Your task to perform on an android device: show emergency info Image 0: 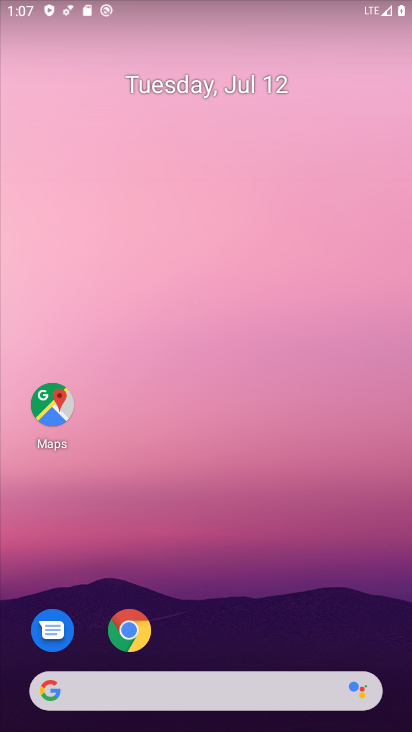
Step 0: press home button
Your task to perform on an android device: show emergency info Image 1: 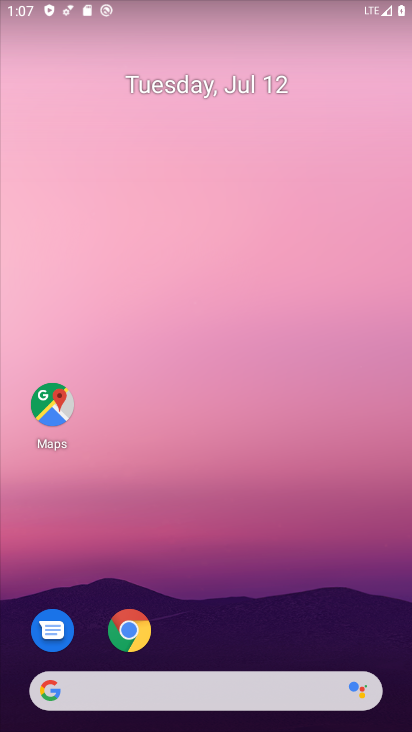
Step 1: drag from (284, 635) to (284, 131)
Your task to perform on an android device: show emergency info Image 2: 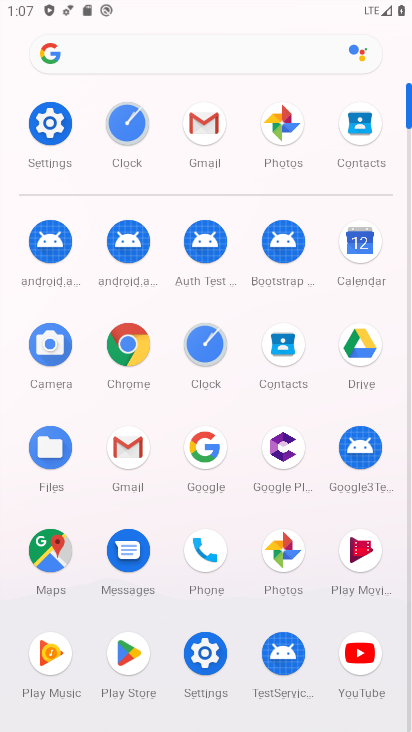
Step 2: click (204, 654)
Your task to perform on an android device: show emergency info Image 3: 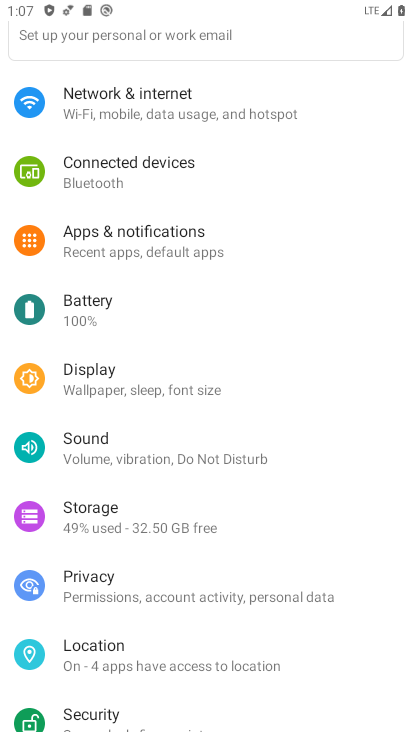
Step 3: drag from (339, 565) to (287, 84)
Your task to perform on an android device: show emergency info Image 4: 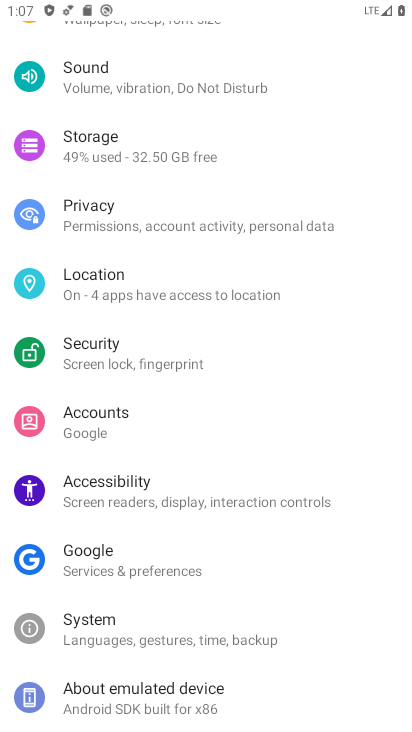
Step 4: click (115, 693)
Your task to perform on an android device: show emergency info Image 5: 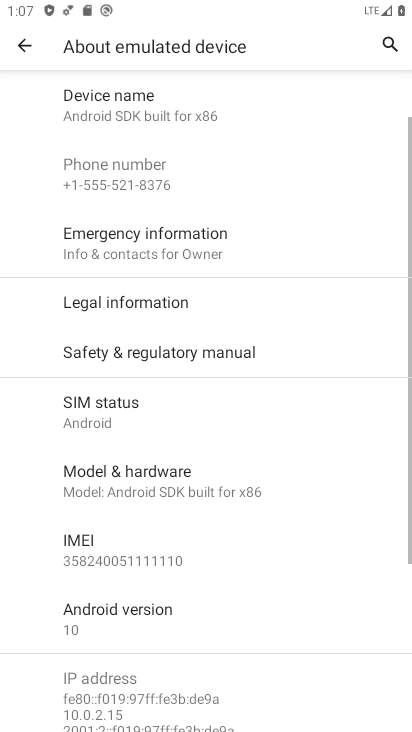
Step 5: click (122, 242)
Your task to perform on an android device: show emergency info Image 6: 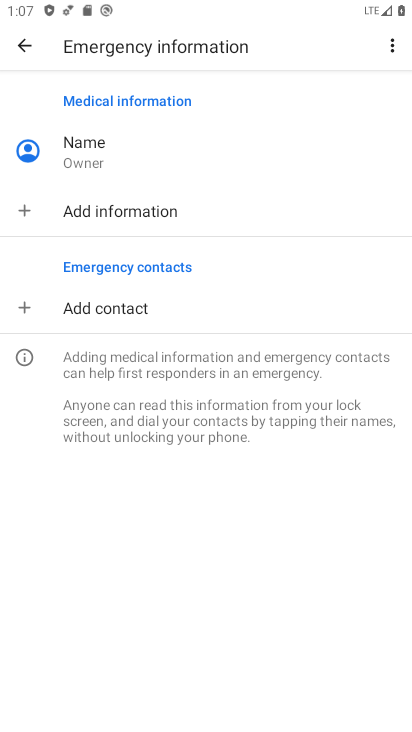
Step 6: task complete